Your task to perform on an android device: open app "Lyft - Rideshare, Bikes, Scooters & Transit" Image 0: 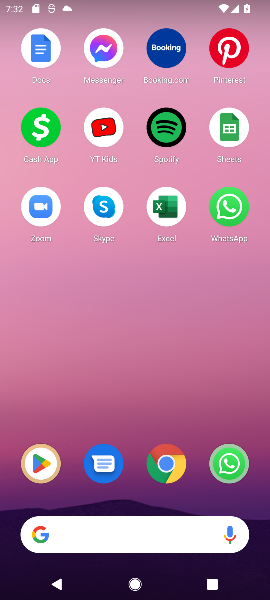
Step 0: click (38, 469)
Your task to perform on an android device: open app "Lyft - Rideshare, Bikes, Scooters & Transit" Image 1: 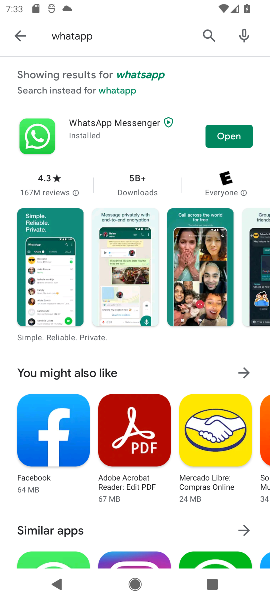
Step 1: click (214, 38)
Your task to perform on an android device: open app "Lyft - Rideshare, Bikes, Scooters & Transit" Image 2: 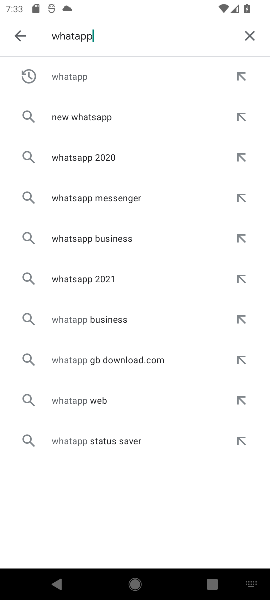
Step 2: click (247, 38)
Your task to perform on an android device: open app "Lyft - Rideshare, Bikes, Scooters & Transit" Image 3: 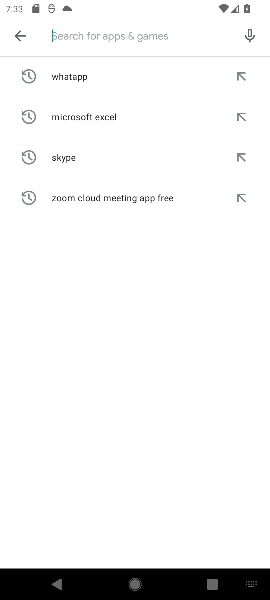
Step 3: type "lyst"
Your task to perform on an android device: open app "Lyft - Rideshare, Bikes, Scooters & Transit" Image 4: 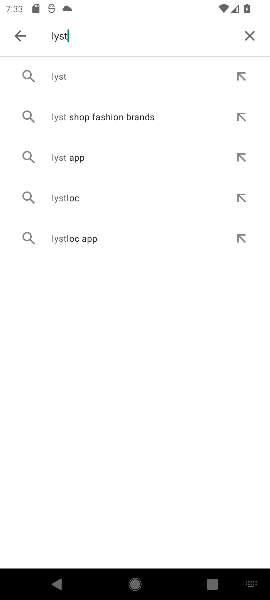
Step 4: click (123, 83)
Your task to perform on an android device: open app "Lyft - Rideshare, Bikes, Scooters & Transit" Image 5: 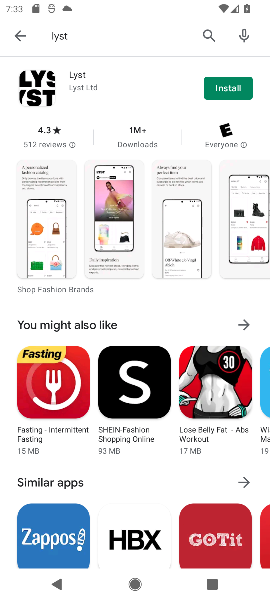
Step 5: click (222, 83)
Your task to perform on an android device: open app "Lyft - Rideshare, Bikes, Scooters & Transit" Image 6: 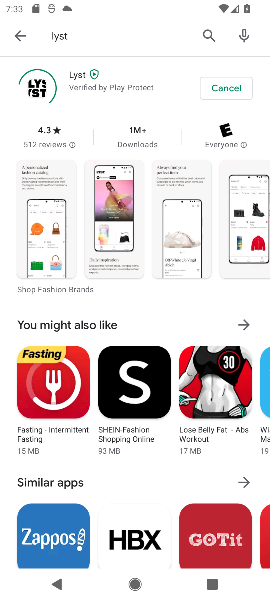
Step 6: task complete